Your task to perform on an android device: open chrome and create a bookmark for the current page Image 0: 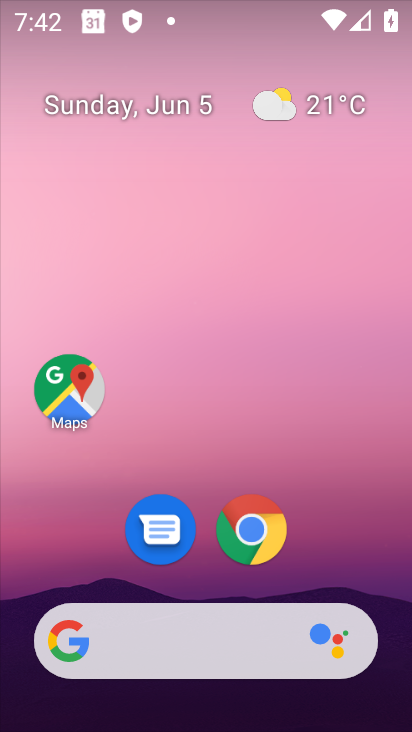
Step 0: click (271, 515)
Your task to perform on an android device: open chrome and create a bookmark for the current page Image 1: 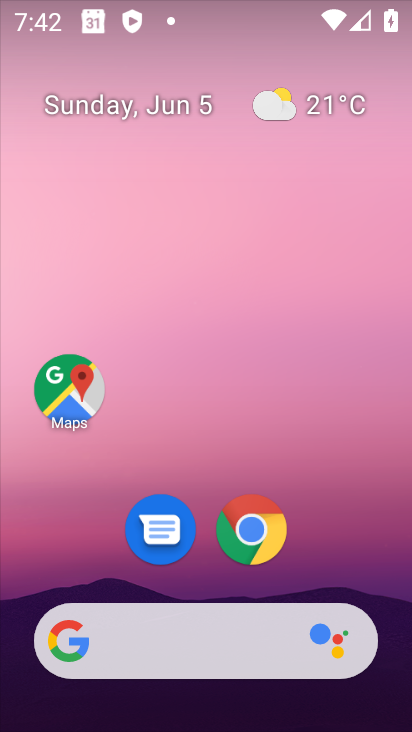
Step 1: click (271, 515)
Your task to perform on an android device: open chrome and create a bookmark for the current page Image 2: 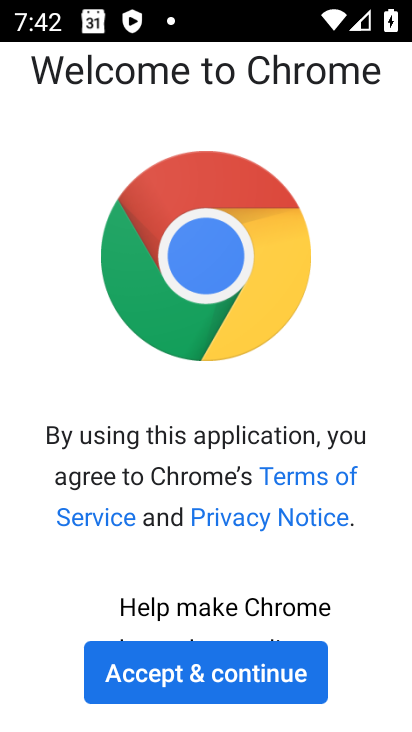
Step 2: click (230, 678)
Your task to perform on an android device: open chrome and create a bookmark for the current page Image 3: 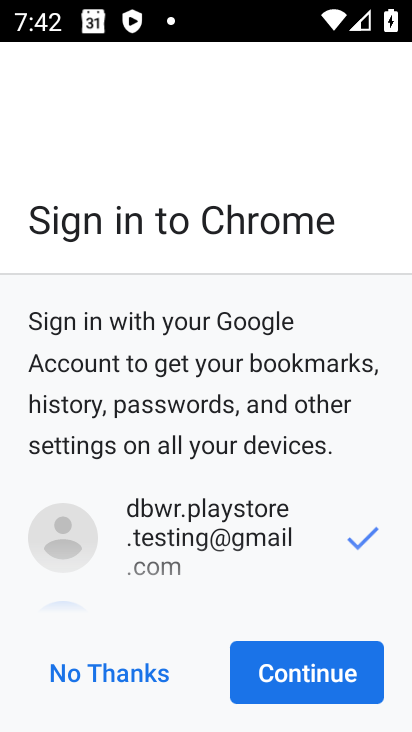
Step 3: click (230, 678)
Your task to perform on an android device: open chrome and create a bookmark for the current page Image 4: 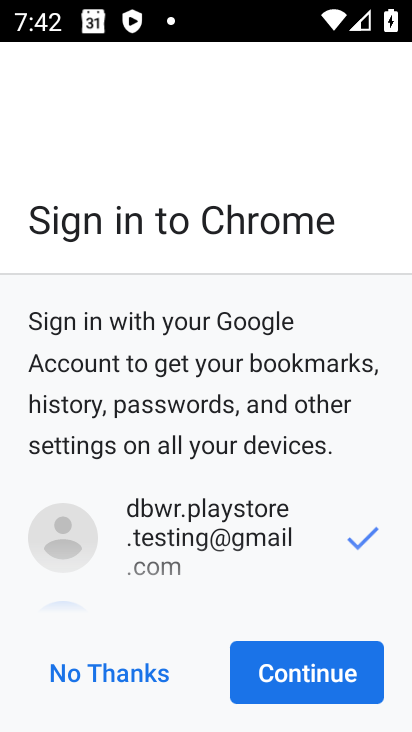
Step 4: click (255, 679)
Your task to perform on an android device: open chrome and create a bookmark for the current page Image 5: 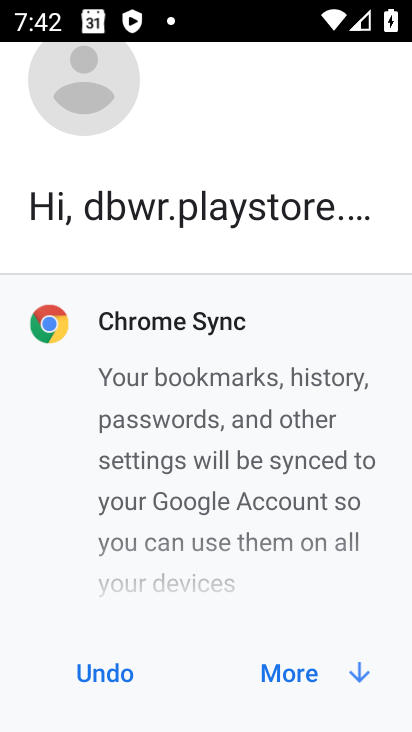
Step 5: click (255, 679)
Your task to perform on an android device: open chrome and create a bookmark for the current page Image 6: 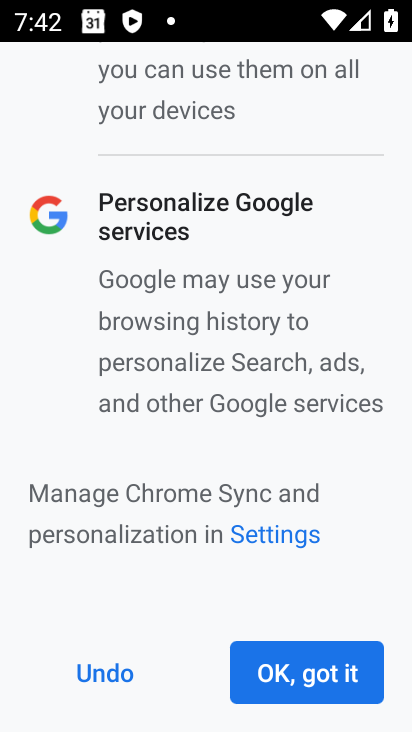
Step 6: click (255, 679)
Your task to perform on an android device: open chrome and create a bookmark for the current page Image 7: 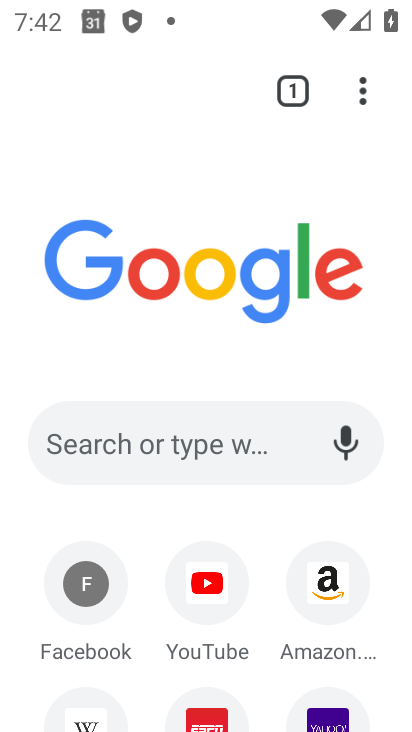
Step 7: click (359, 100)
Your task to perform on an android device: open chrome and create a bookmark for the current page Image 8: 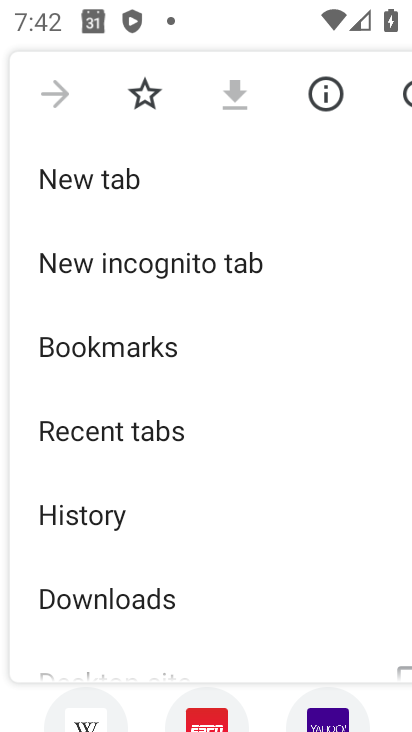
Step 8: click (157, 91)
Your task to perform on an android device: open chrome and create a bookmark for the current page Image 9: 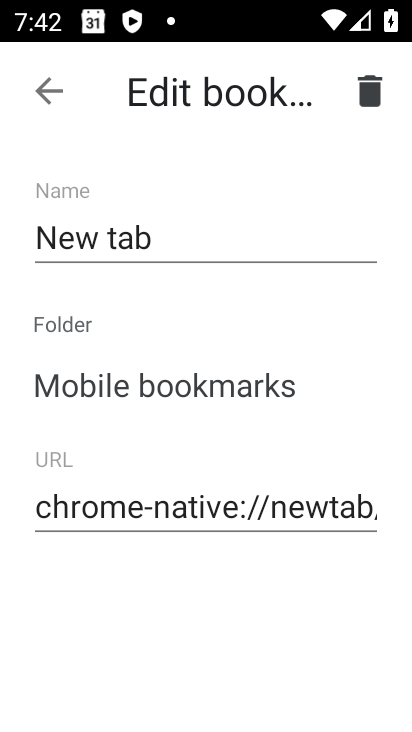
Step 9: click (45, 82)
Your task to perform on an android device: open chrome and create a bookmark for the current page Image 10: 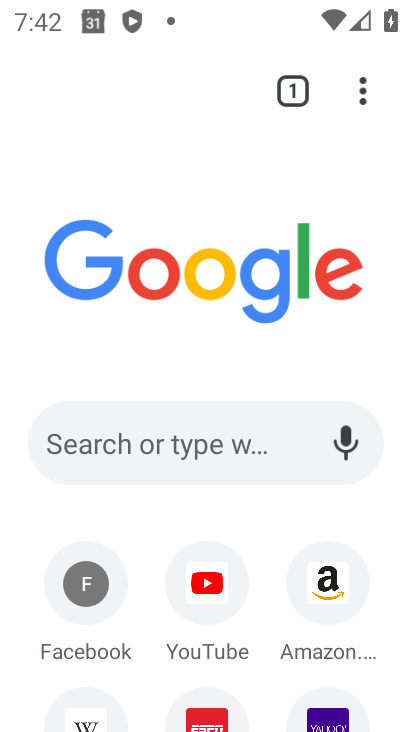
Step 10: click (372, 96)
Your task to perform on an android device: open chrome and create a bookmark for the current page Image 11: 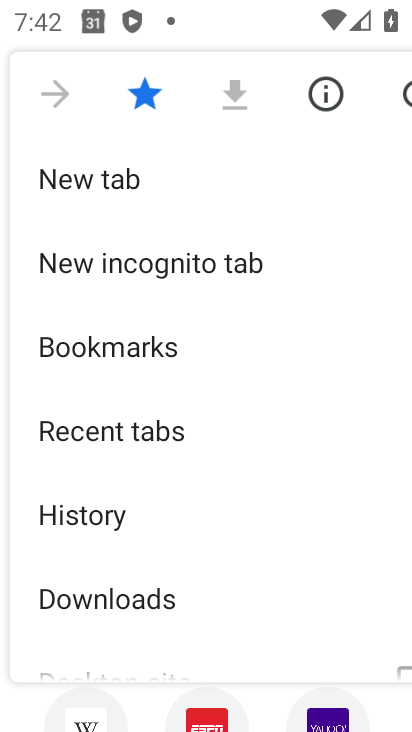
Step 11: task complete